Your task to perform on an android device: change keyboard looks Image 0: 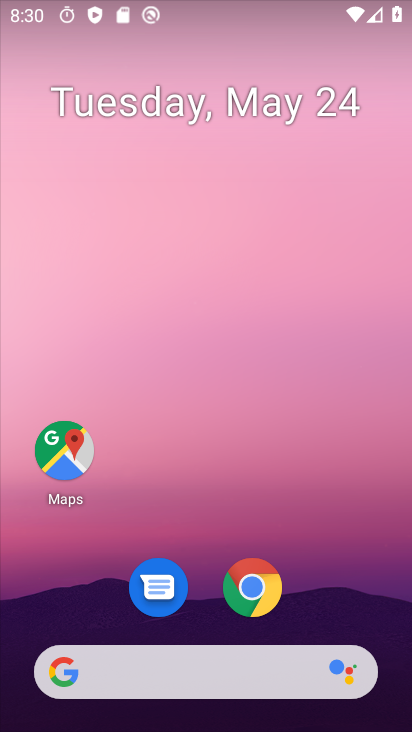
Step 0: drag from (331, 547) to (344, 69)
Your task to perform on an android device: change keyboard looks Image 1: 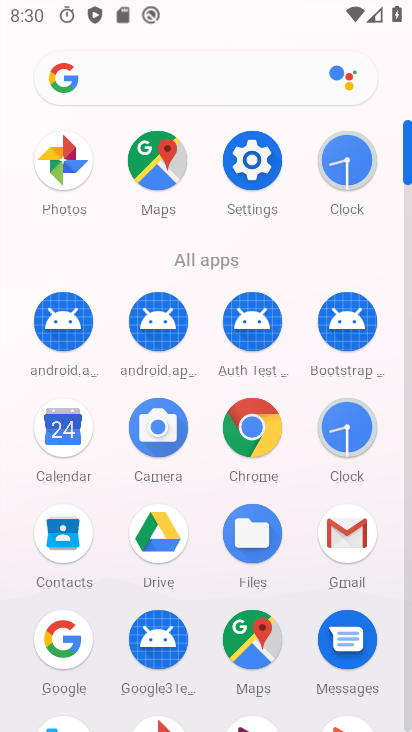
Step 1: click (254, 159)
Your task to perform on an android device: change keyboard looks Image 2: 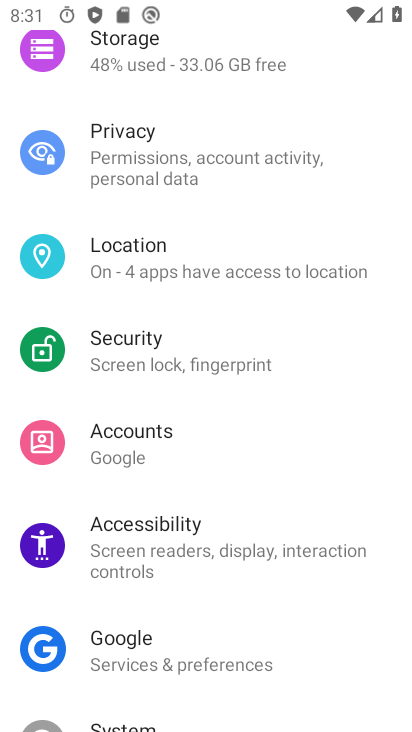
Step 2: drag from (232, 430) to (228, 369)
Your task to perform on an android device: change keyboard looks Image 3: 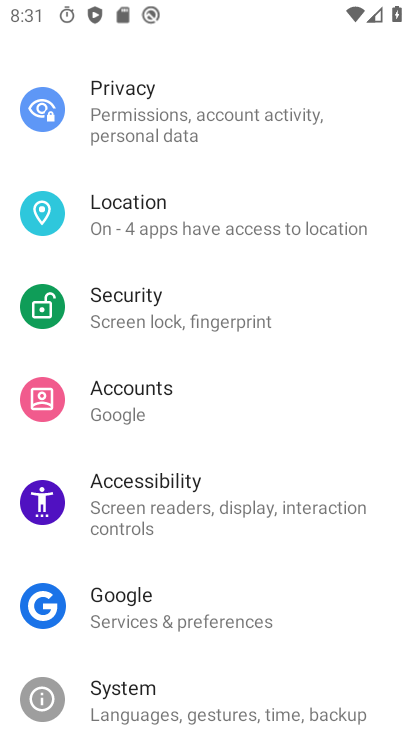
Step 3: drag from (202, 542) to (237, 470)
Your task to perform on an android device: change keyboard looks Image 4: 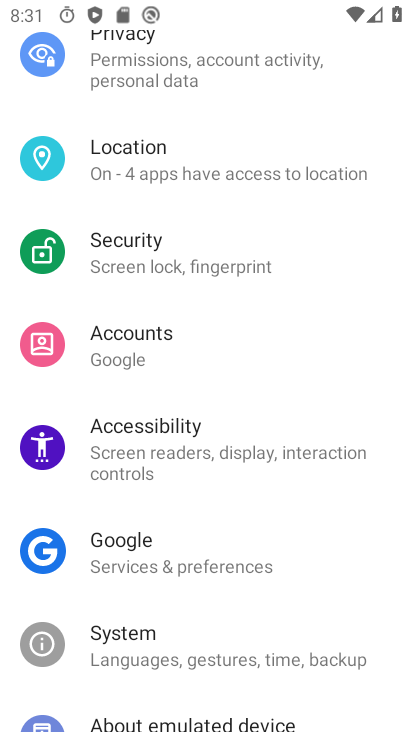
Step 4: click (195, 656)
Your task to perform on an android device: change keyboard looks Image 5: 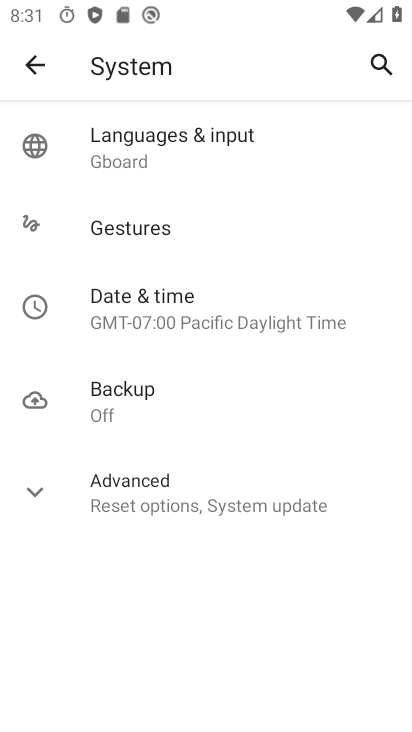
Step 5: click (158, 140)
Your task to perform on an android device: change keyboard looks Image 6: 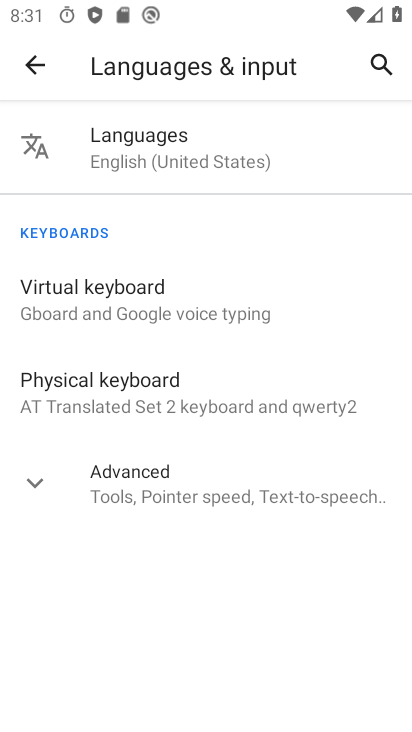
Step 6: click (117, 292)
Your task to perform on an android device: change keyboard looks Image 7: 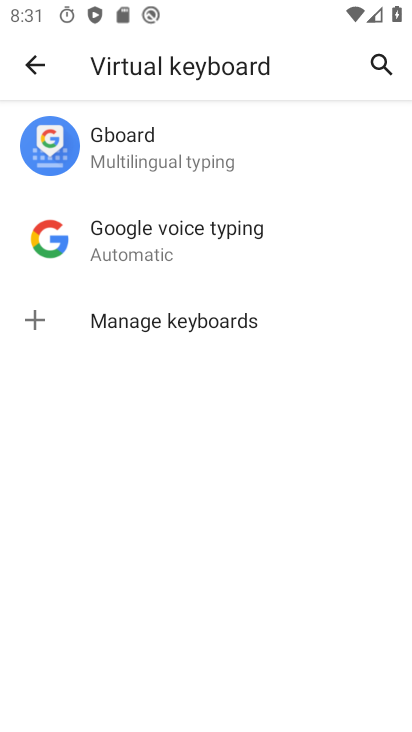
Step 7: click (193, 164)
Your task to perform on an android device: change keyboard looks Image 8: 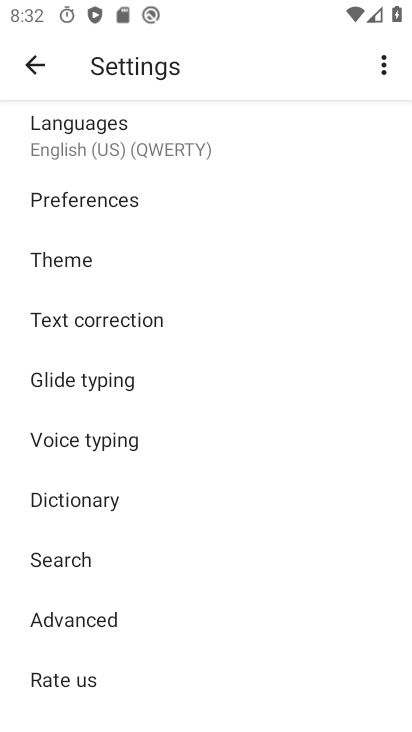
Step 8: click (82, 262)
Your task to perform on an android device: change keyboard looks Image 9: 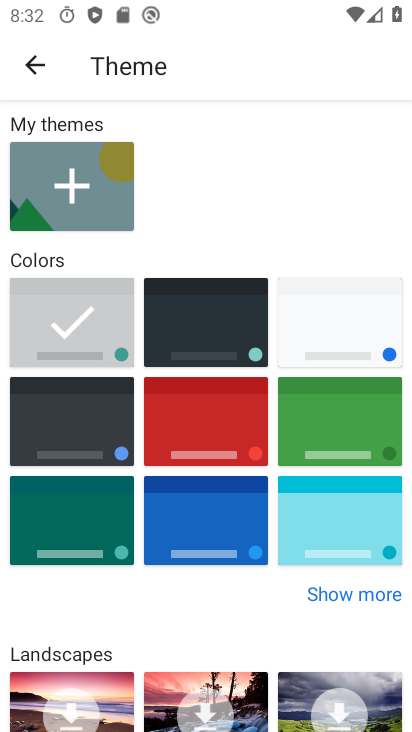
Step 9: click (232, 520)
Your task to perform on an android device: change keyboard looks Image 10: 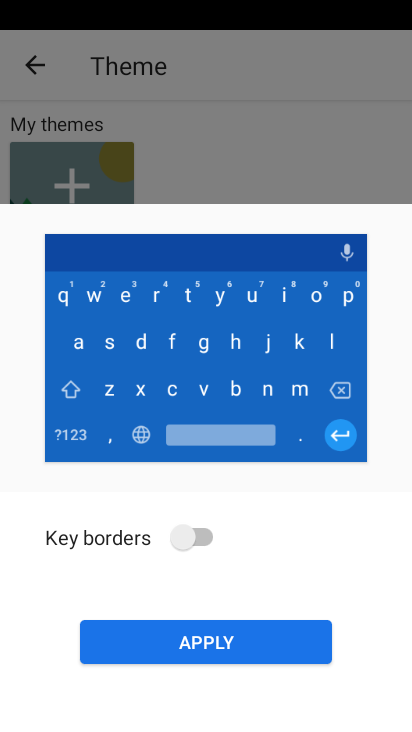
Step 10: click (190, 547)
Your task to perform on an android device: change keyboard looks Image 11: 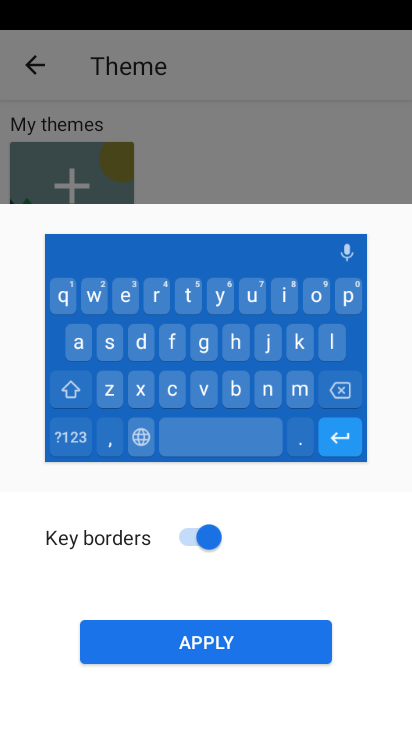
Step 11: click (256, 637)
Your task to perform on an android device: change keyboard looks Image 12: 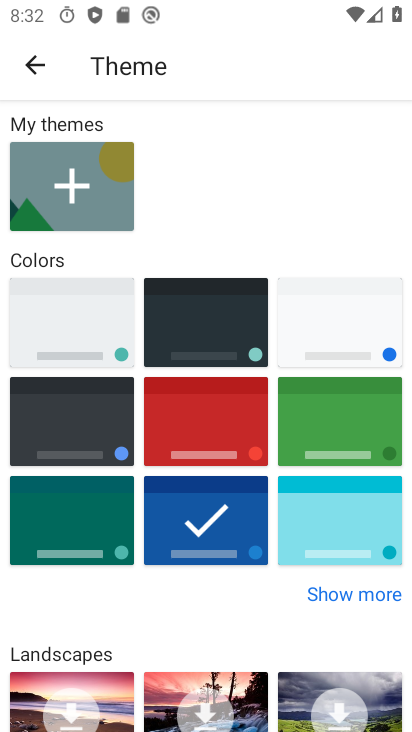
Step 12: task complete